Your task to perform on an android device: Search for vegetarian restaurants on Maps Image 0: 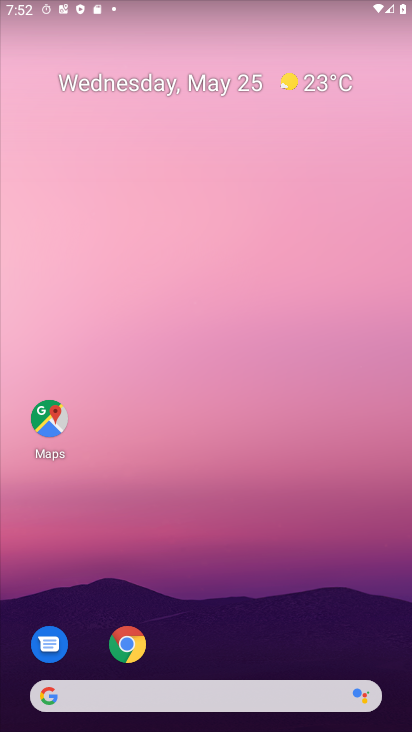
Step 0: press home button
Your task to perform on an android device: Search for vegetarian restaurants on Maps Image 1: 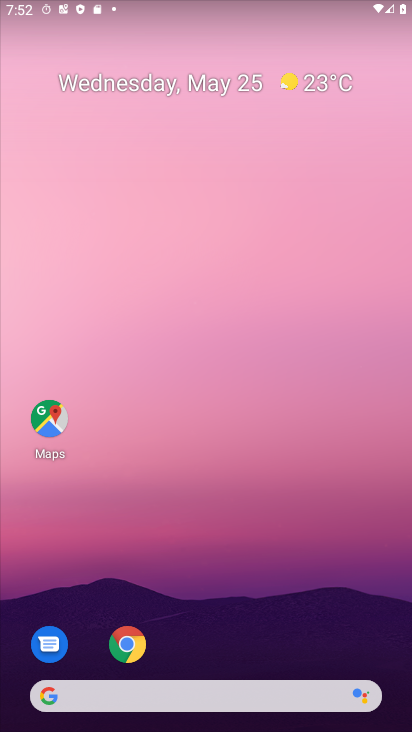
Step 1: drag from (259, 712) to (267, 98)
Your task to perform on an android device: Search for vegetarian restaurants on Maps Image 2: 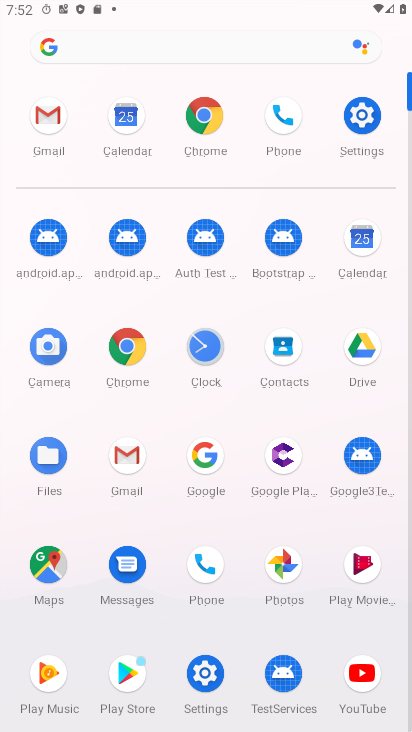
Step 2: click (69, 570)
Your task to perform on an android device: Search for vegetarian restaurants on Maps Image 3: 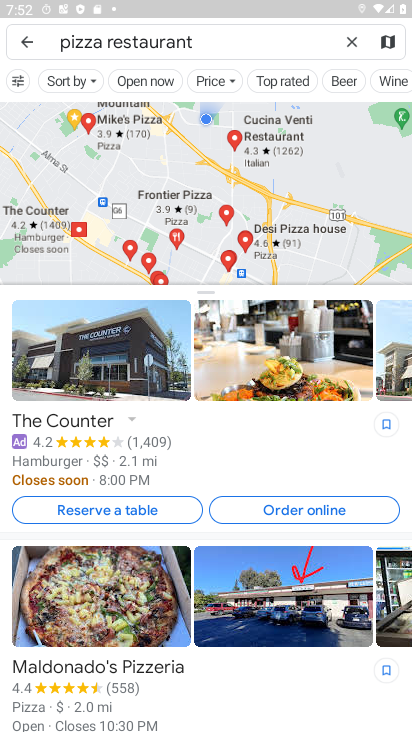
Step 3: click (344, 36)
Your task to perform on an android device: Search for vegetarian restaurants on Maps Image 4: 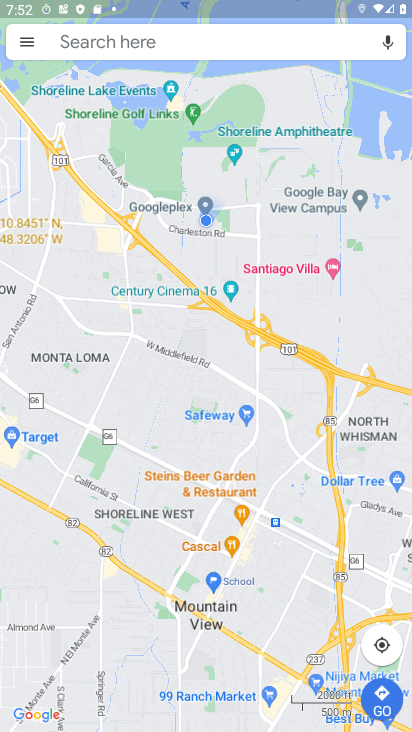
Step 4: click (177, 47)
Your task to perform on an android device: Search for vegetarian restaurants on Maps Image 5: 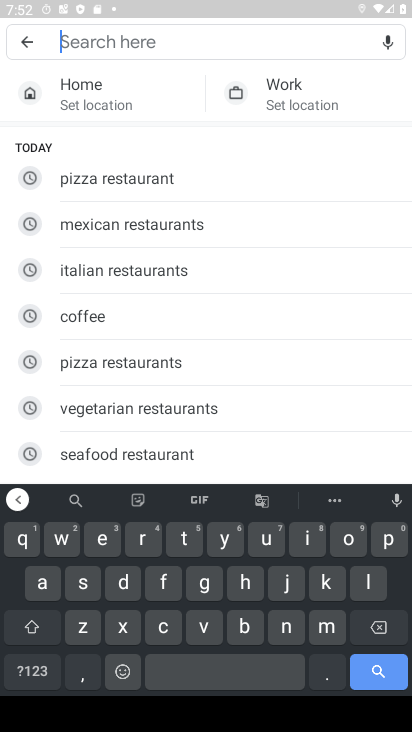
Step 5: click (136, 410)
Your task to perform on an android device: Search for vegetarian restaurants on Maps Image 6: 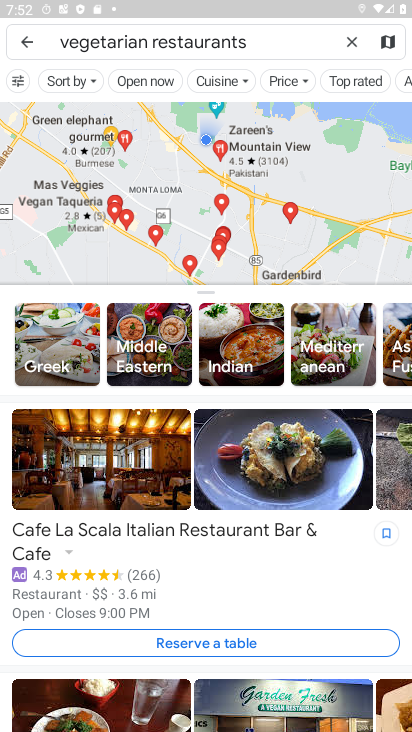
Step 6: click (192, 159)
Your task to perform on an android device: Search for vegetarian restaurants on Maps Image 7: 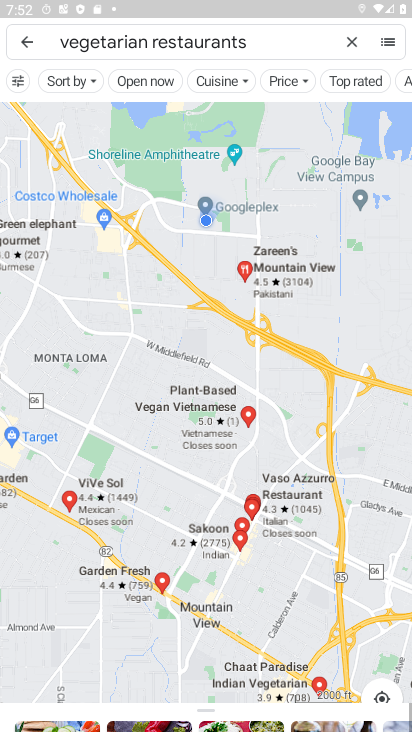
Step 7: task complete